Your task to perform on an android device: Go to calendar. Show me events next week Image 0: 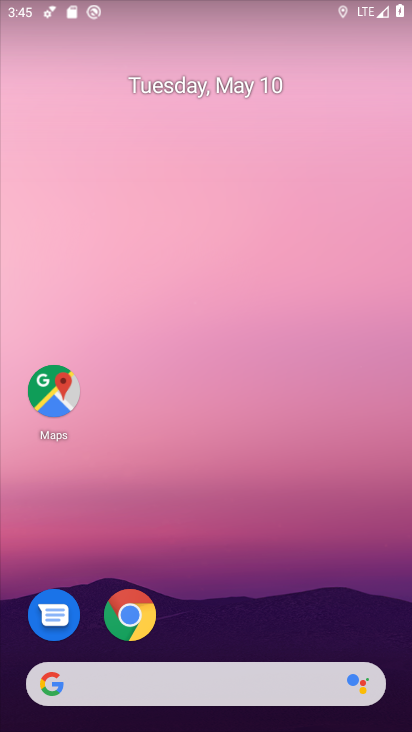
Step 0: drag from (230, 672) to (224, 77)
Your task to perform on an android device: Go to calendar. Show me events next week Image 1: 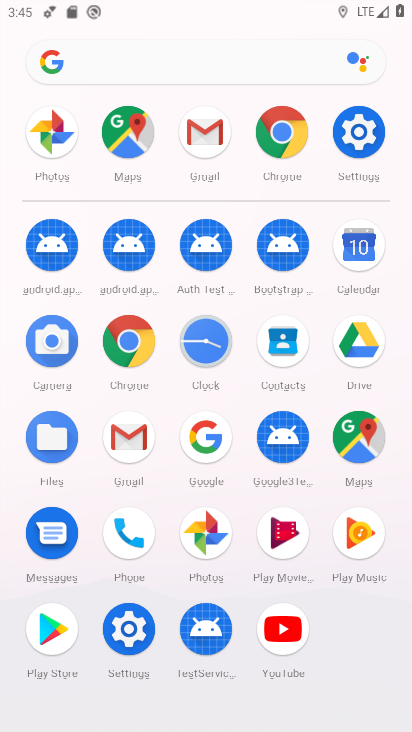
Step 1: click (367, 271)
Your task to perform on an android device: Go to calendar. Show me events next week Image 2: 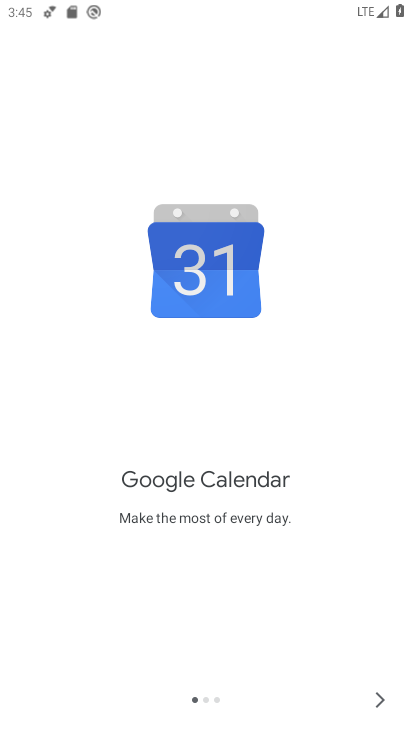
Step 2: click (381, 690)
Your task to perform on an android device: Go to calendar. Show me events next week Image 3: 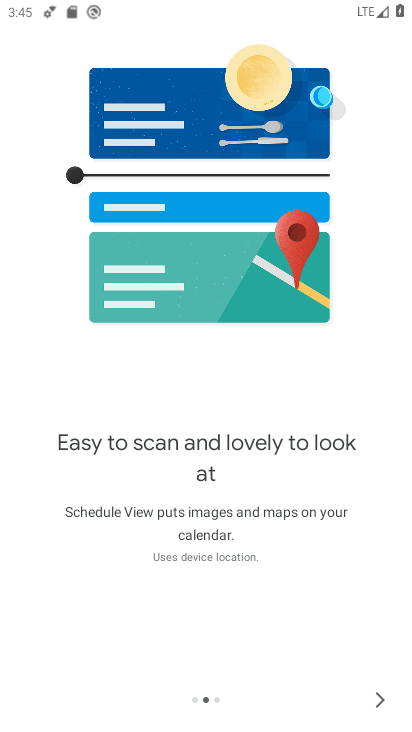
Step 3: click (380, 700)
Your task to perform on an android device: Go to calendar. Show me events next week Image 4: 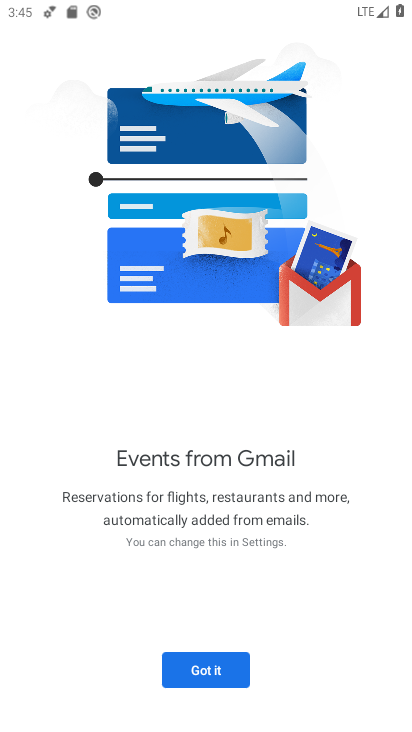
Step 4: click (220, 666)
Your task to perform on an android device: Go to calendar. Show me events next week Image 5: 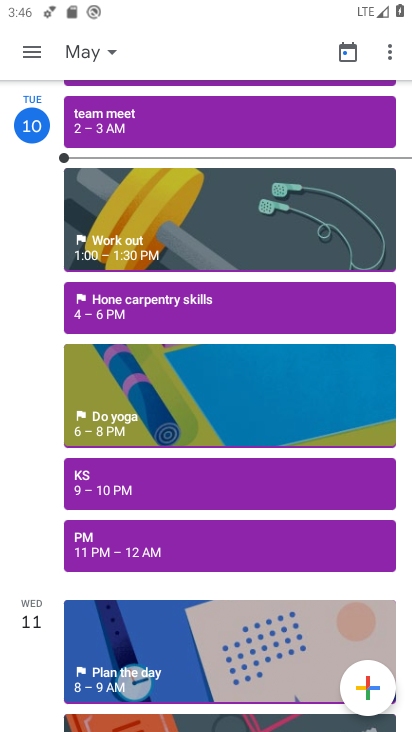
Step 5: click (110, 51)
Your task to perform on an android device: Go to calendar. Show me events next week Image 6: 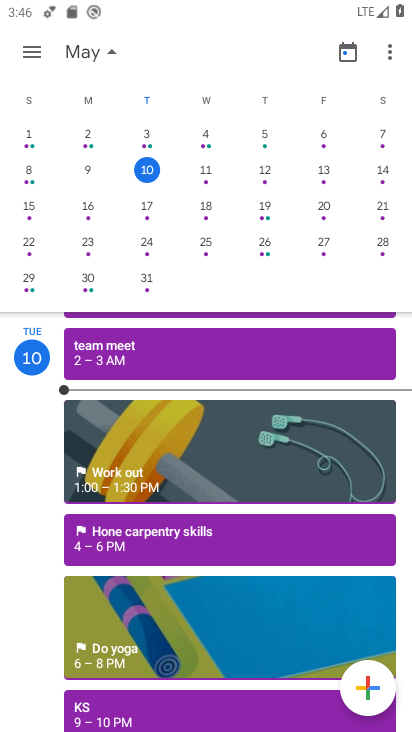
Step 6: drag from (356, 203) to (147, 217)
Your task to perform on an android device: Go to calendar. Show me events next week Image 7: 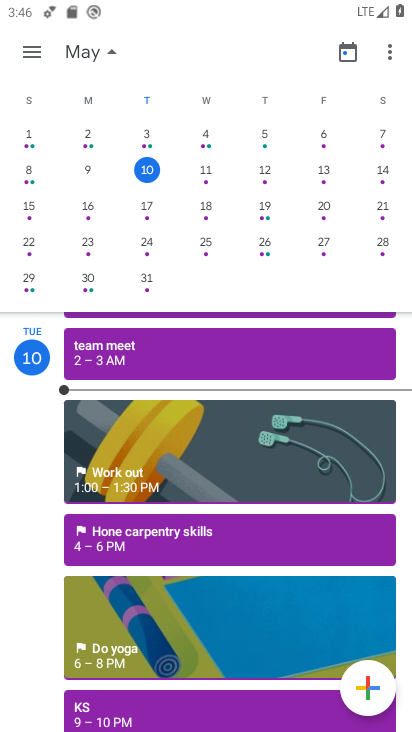
Step 7: drag from (367, 207) to (32, 223)
Your task to perform on an android device: Go to calendar. Show me events next week Image 8: 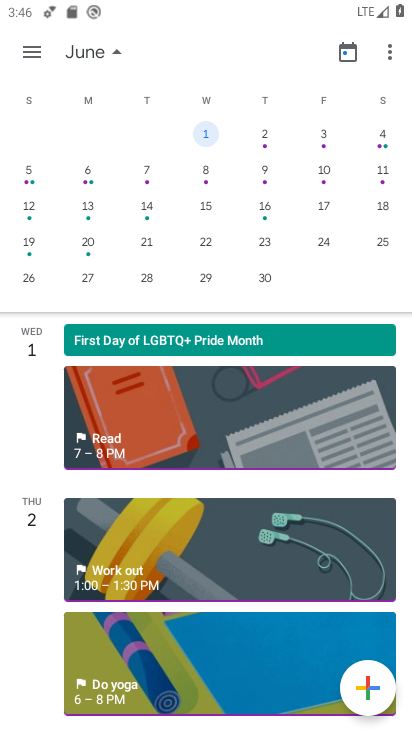
Step 8: drag from (54, 215) to (411, 186)
Your task to perform on an android device: Go to calendar. Show me events next week Image 9: 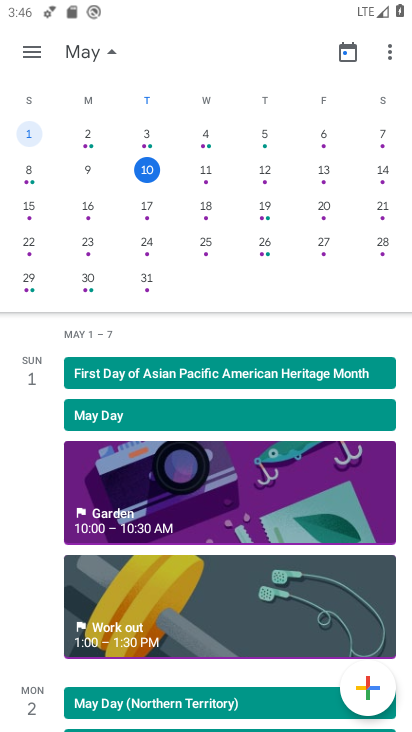
Step 9: click (199, 171)
Your task to perform on an android device: Go to calendar. Show me events next week Image 10: 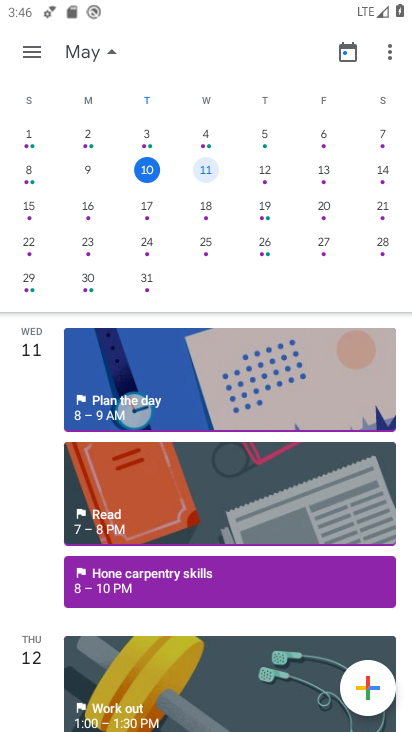
Step 10: click (205, 213)
Your task to perform on an android device: Go to calendar. Show me events next week Image 11: 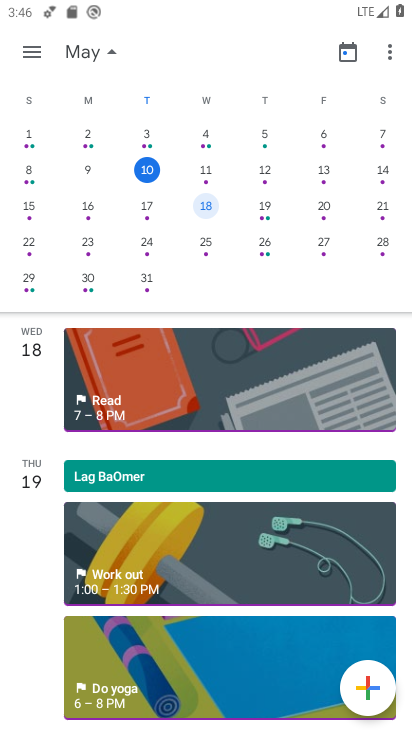
Step 11: task complete